Your task to perform on an android device: turn on translation in the chrome app Image 0: 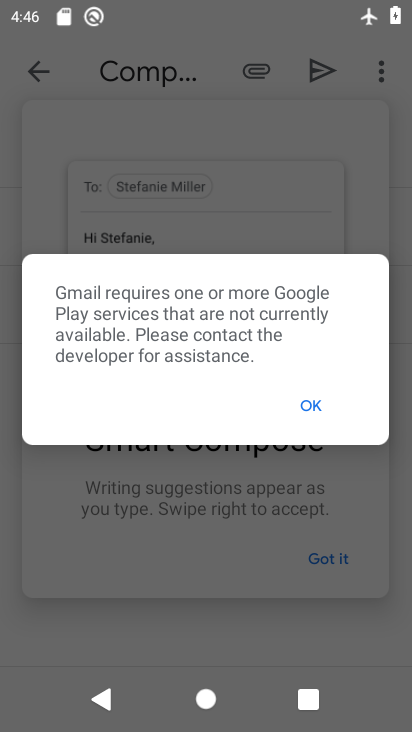
Step 0: press home button
Your task to perform on an android device: turn on translation in the chrome app Image 1: 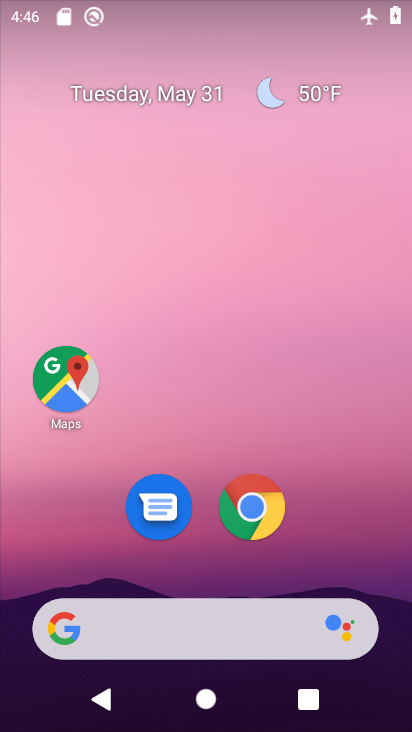
Step 1: click (267, 516)
Your task to perform on an android device: turn on translation in the chrome app Image 2: 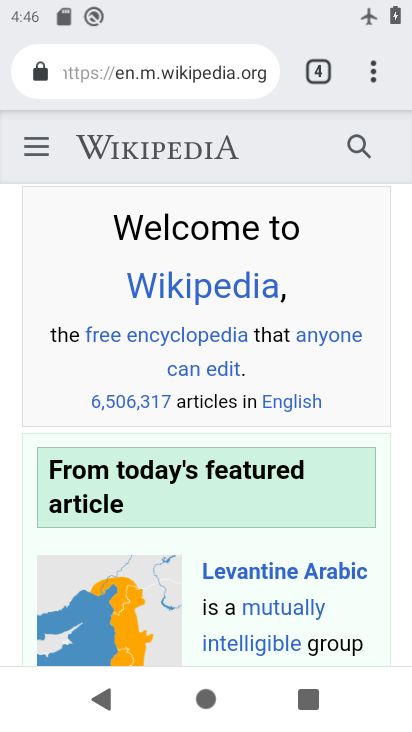
Step 2: click (372, 75)
Your task to perform on an android device: turn on translation in the chrome app Image 3: 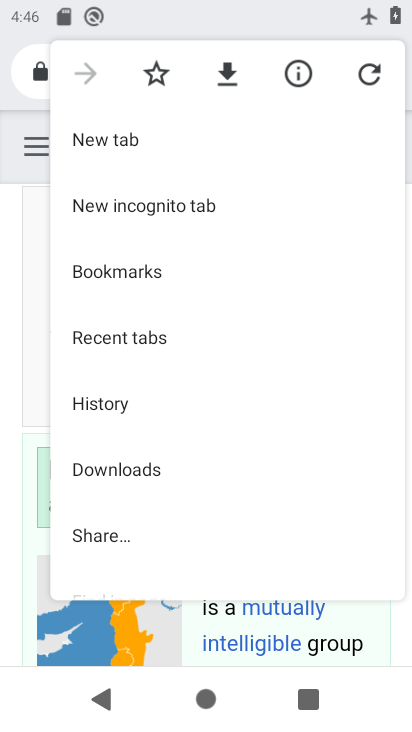
Step 3: drag from (264, 543) to (194, 0)
Your task to perform on an android device: turn on translation in the chrome app Image 4: 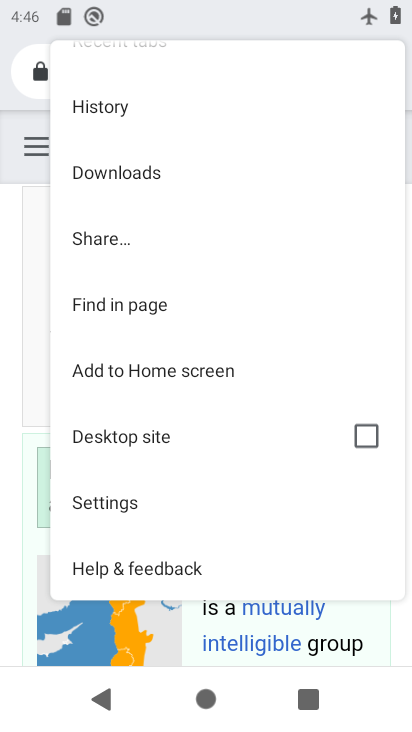
Step 4: click (133, 496)
Your task to perform on an android device: turn on translation in the chrome app Image 5: 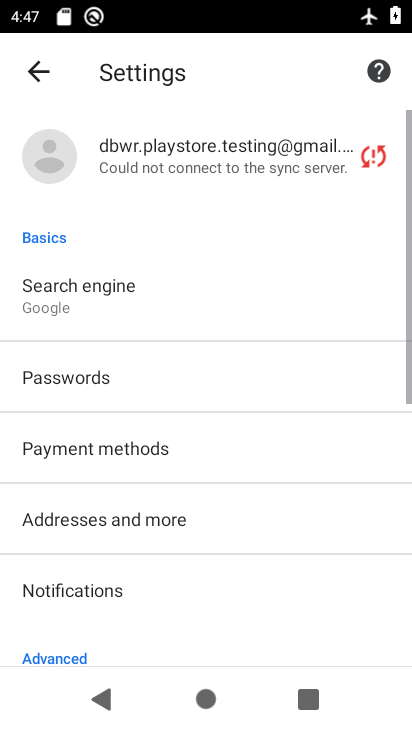
Step 5: drag from (256, 600) to (286, 82)
Your task to perform on an android device: turn on translation in the chrome app Image 6: 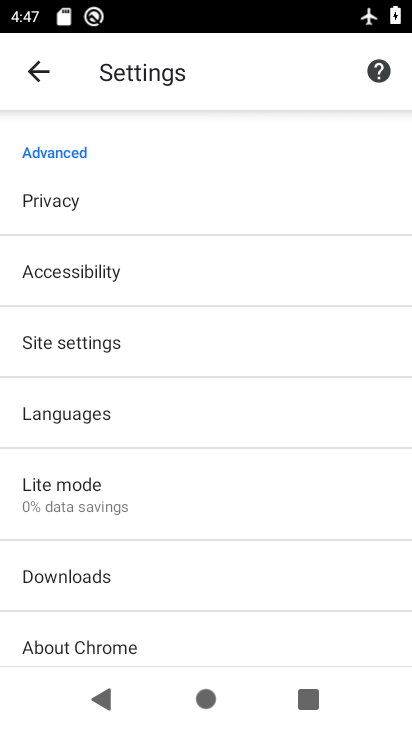
Step 6: click (239, 399)
Your task to perform on an android device: turn on translation in the chrome app Image 7: 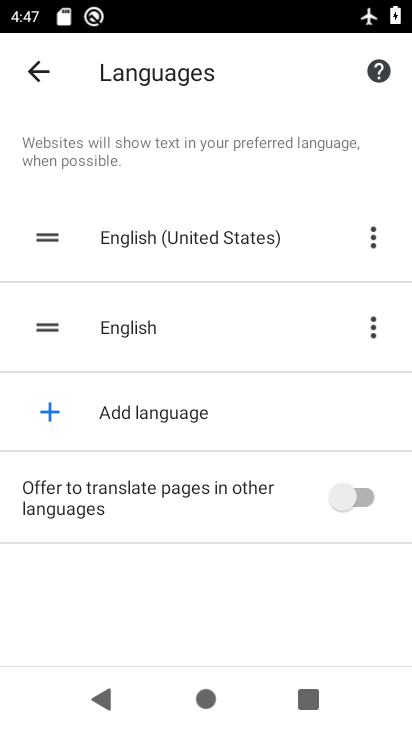
Step 7: click (348, 482)
Your task to perform on an android device: turn on translation in the chrome app Image 8: 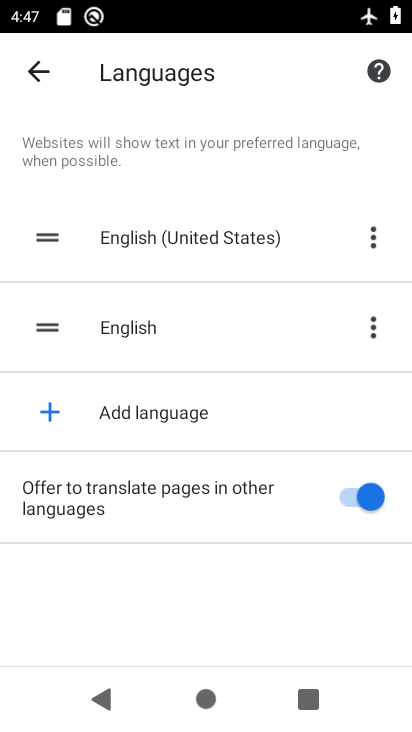
Step 8: task complete